Your task to perform on an android device: change notification settings in the gmail app Image 0: 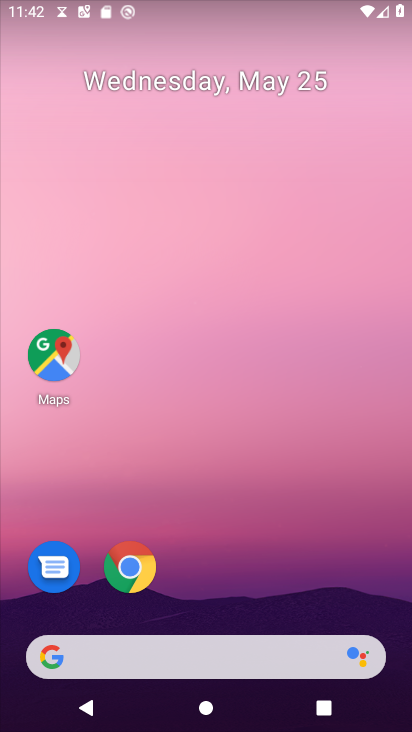
Step 0: drag from (248, 537) to (246, 53)
Your task to perform on an android device: change notification settings in the gmail app Image 1: 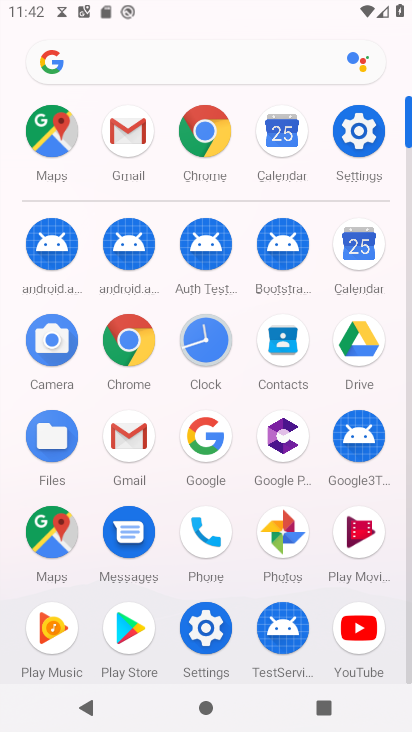
Step 1: click (365, 135)
Your task to perform on an android device: change notification settings in the gmail app Image 2: 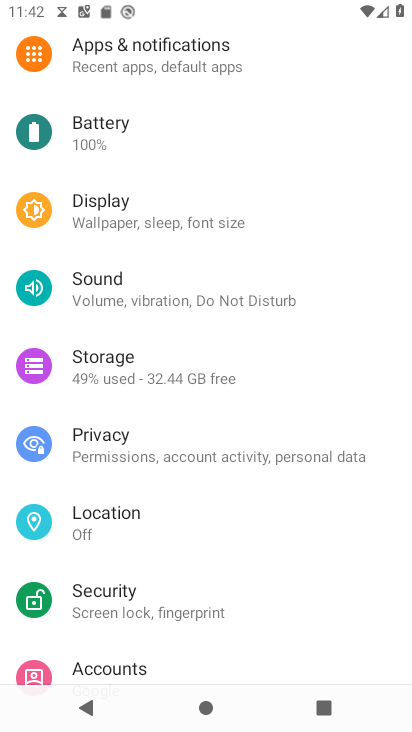
Step 2: press home button
Your task to perform on an android device: change notification settings in the gmail app Image 3: 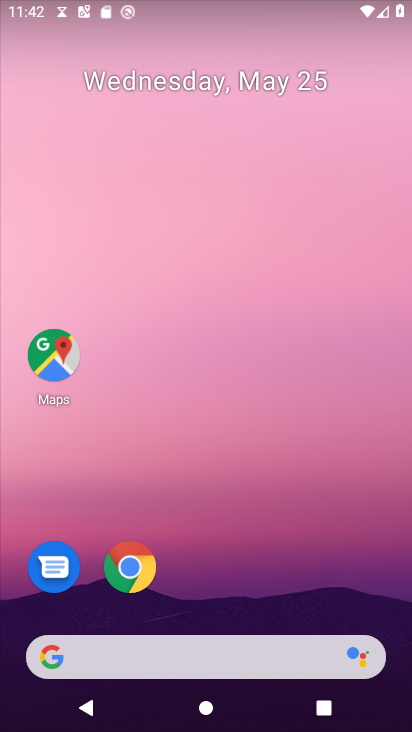
Step 3: drag from (245, 213) to (236, 8)
Your task to perform on an android device: change notification settings in the gmail app Image 4: 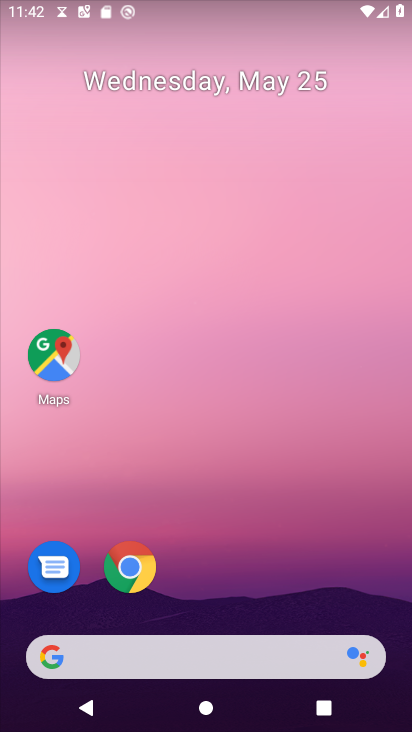
Step 4: drag from (220, 572) to (201, 16)
Your task to perform on an android device: change notification settings in the gmail app Image 5: 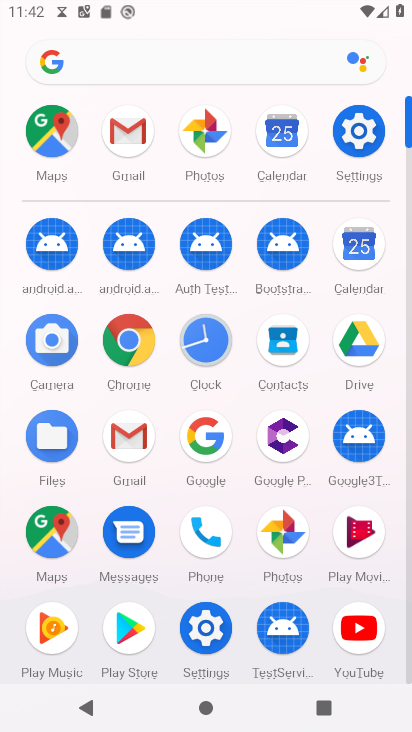
Step 5: click (136, 153)
Your task to perform on an android device: change notification settings in the gmail app Image 6: 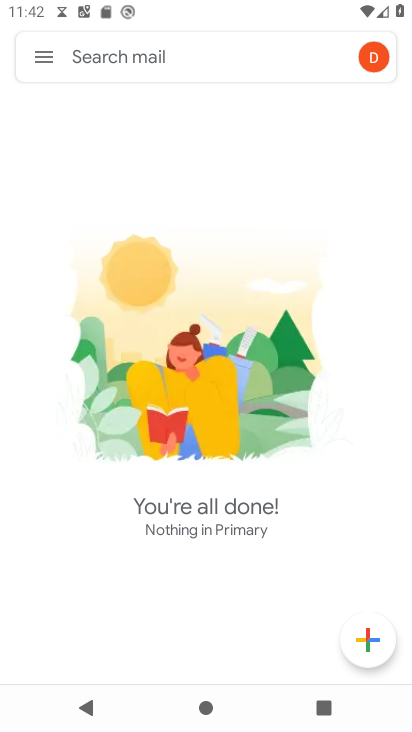
Step 6: click (50, 64)
Your task to perform on an android device: change notification settings in the gmail app Image 7: 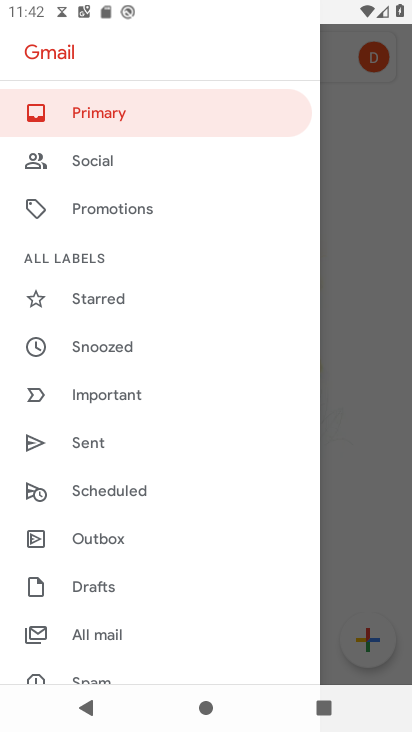
Step 7: drag from (130, 544) to (148, 114)
Your task to perform on an android device: change notification settings in the gmail app Image 8: 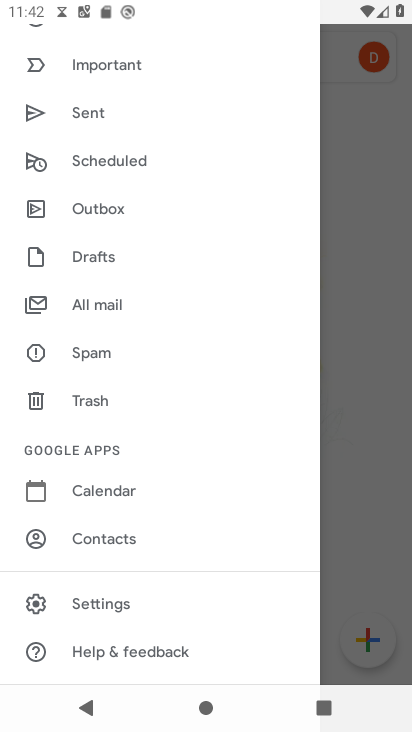
Step 8: click (75, 595)
Your task to perform on an android device: change notification settings in the gmail app Image 9: 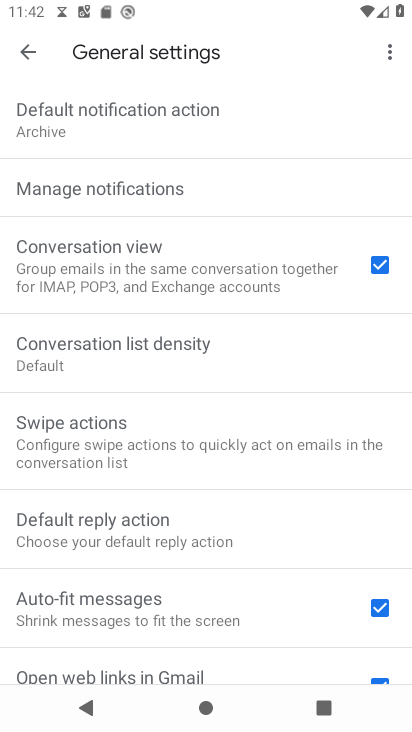
Step 9: drag from (81, 580) to (146, 103)
Your task to perform on an android device: change notification settings in the gmail app Image 10: 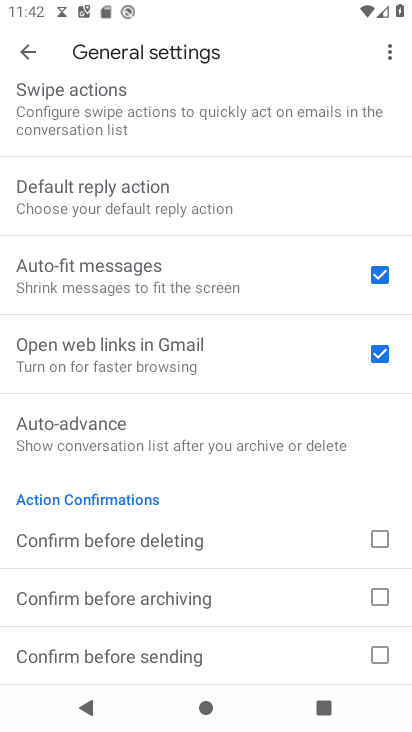
Step 10: drag from (210, 533) to (223, 115)
Your task to perform on an android device: change notification settings in the gmail app Image 11: 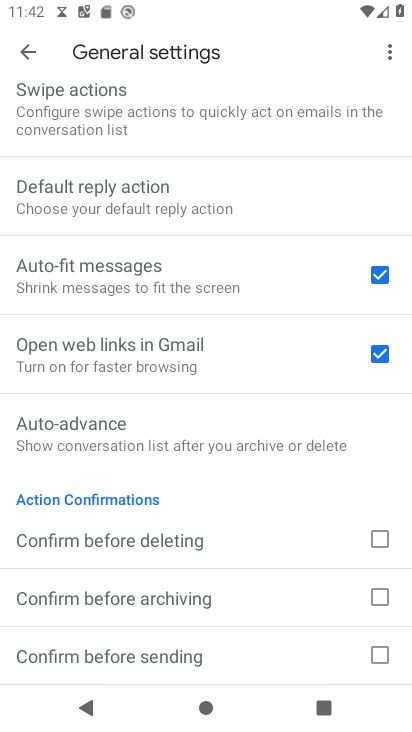
Step 11: drag from (223, 114) to (190, 575)
Your task to perform on an android device: change notification settings in the gmail app Image 12: 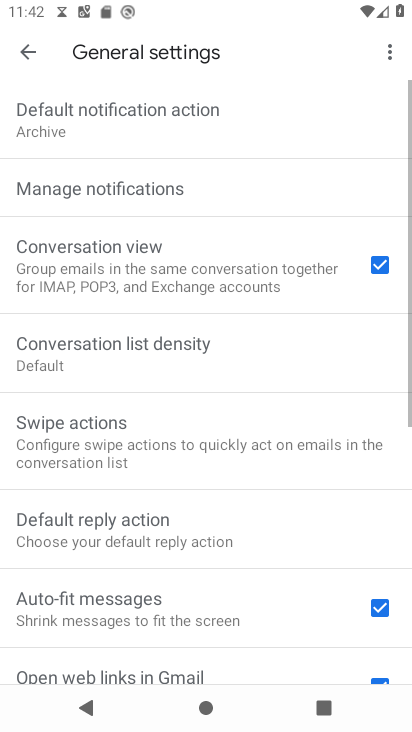
Step 12: drag from (150, 217) to (121, 551)
Your task to perform on an android device: change notification settings in the gmail app Image 13: 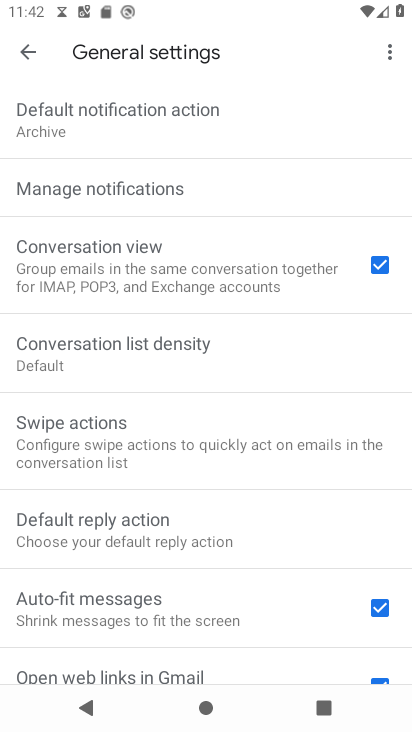
Step 13: click (134, 192)
Your task to perform on an android device: change notification settings in the gmail app Image 14: 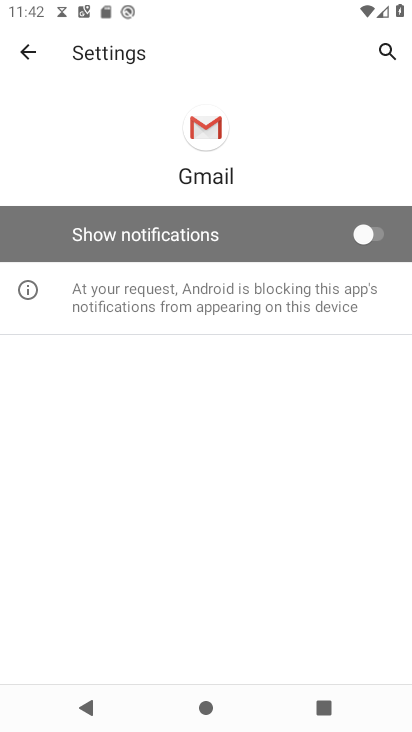
Step 14: click (363, 236)
Your task to perform on an android device: change notification settings in the gmail app Image 15: 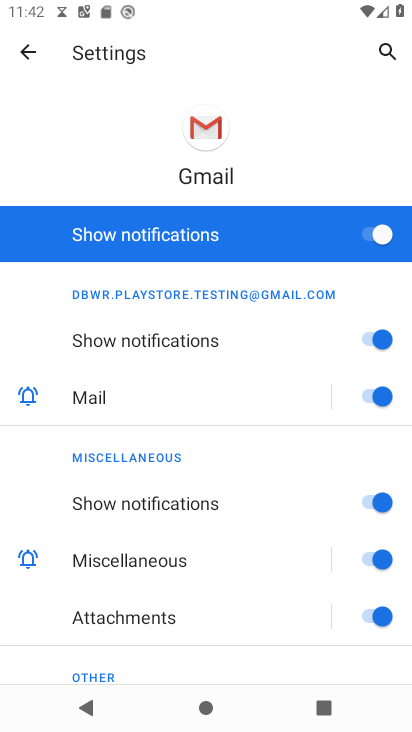
Step 15: drag from (190, 583) to (199, 302)
Your task to perform on an android device: change notification settings in the gmail app Image 16: 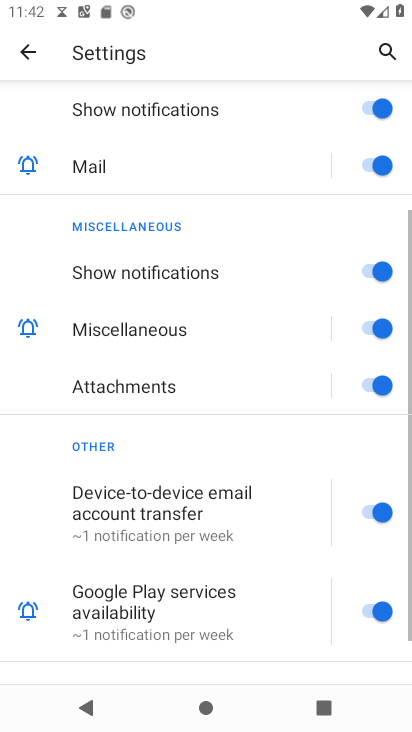
Step 16: click (208, 262)
Your task to perform on an android device: change notification settings in the gmail app Image 17: 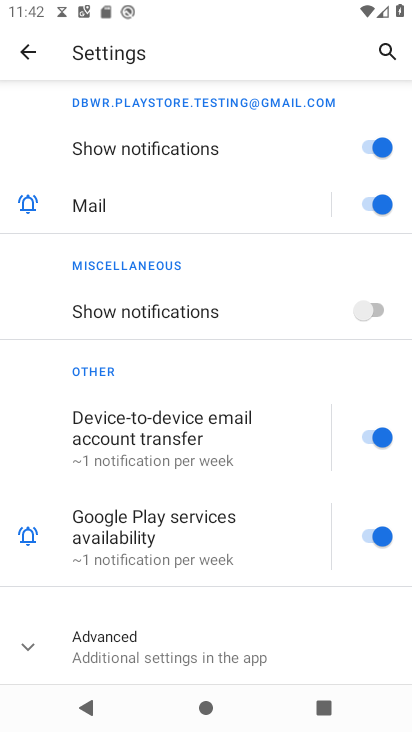
Step 17: task complete